Your task to perform on an android device: install app "Google Pay: Save, Pay, Manage" Image 0: 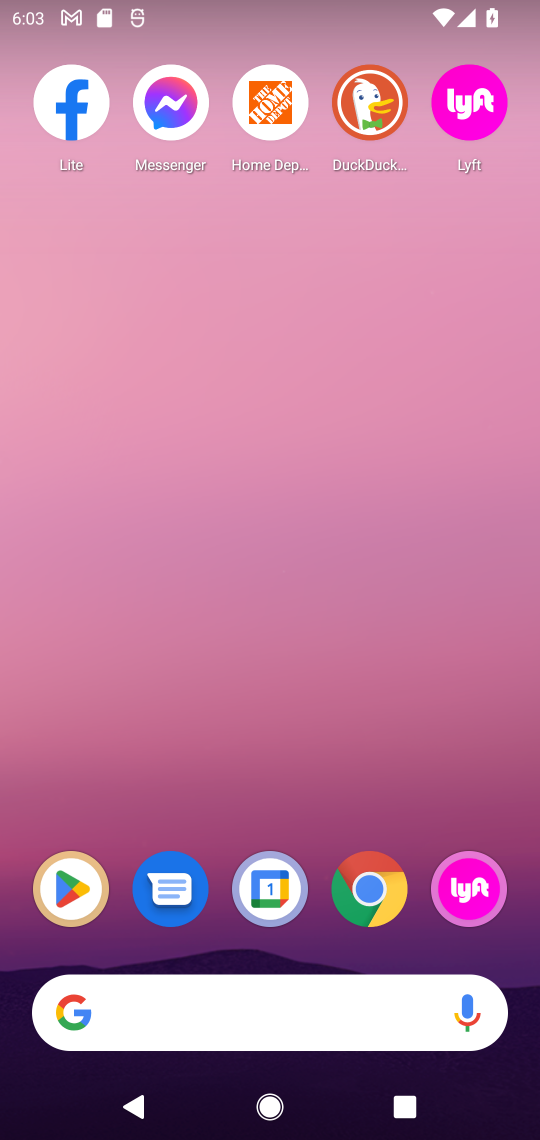
Step 0: drag from (338, 949) to (263, 94)
Your task to perform on an android device: install app "Google Pay: Save, Pay, Manage" Image 1: 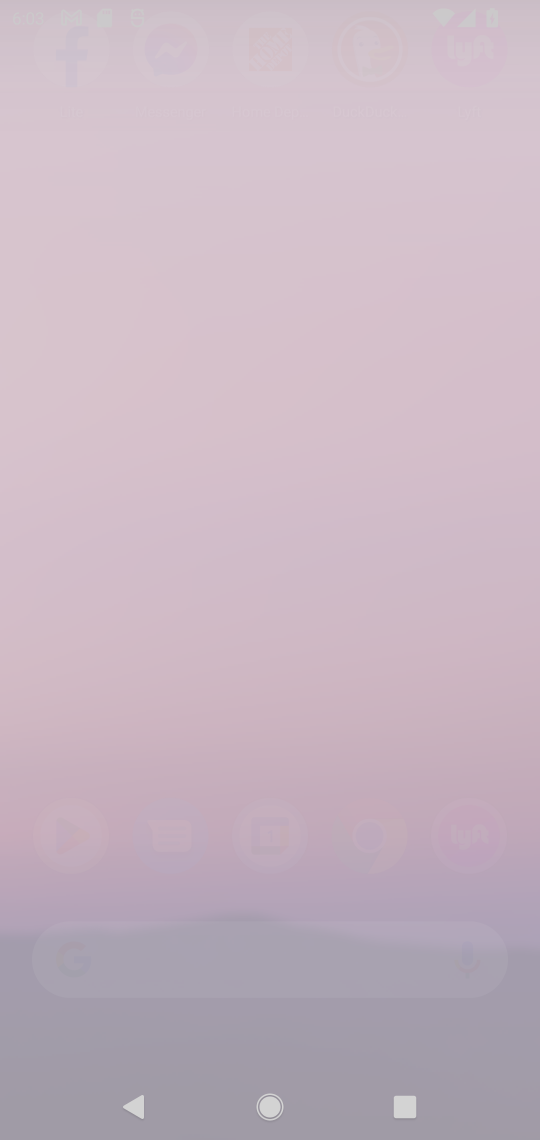
Step 1: drag from (336, 536) to (338, 0)
Your task to perform on an android device: install app "Google Pay: Save, Pay, Manage" Image 2: 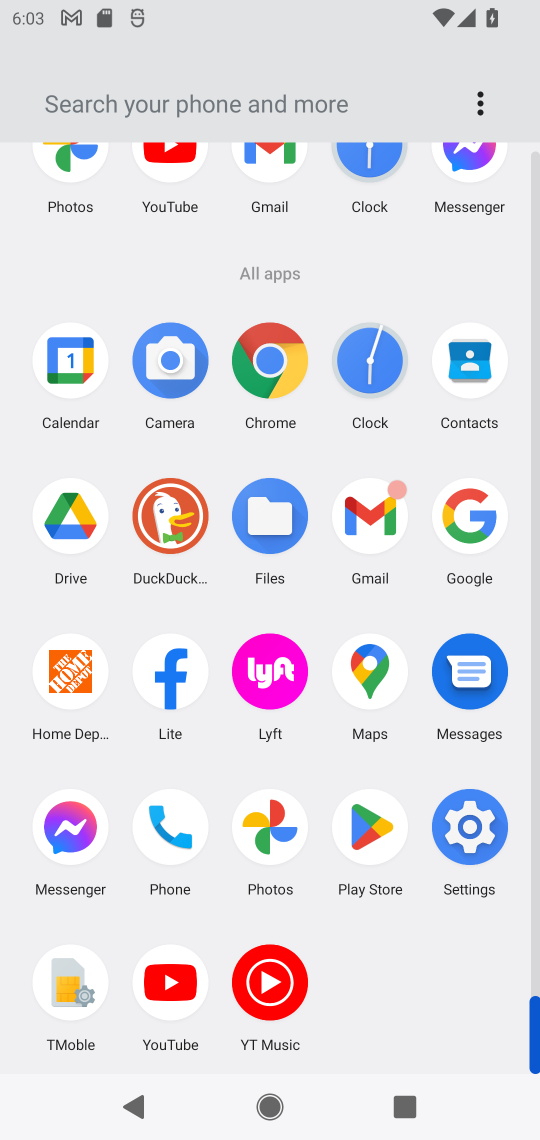
Step 2: click (325, 841)
Your task to perform on an android device: install app "Google Pay: Save, Pay, Manage" Image 3: 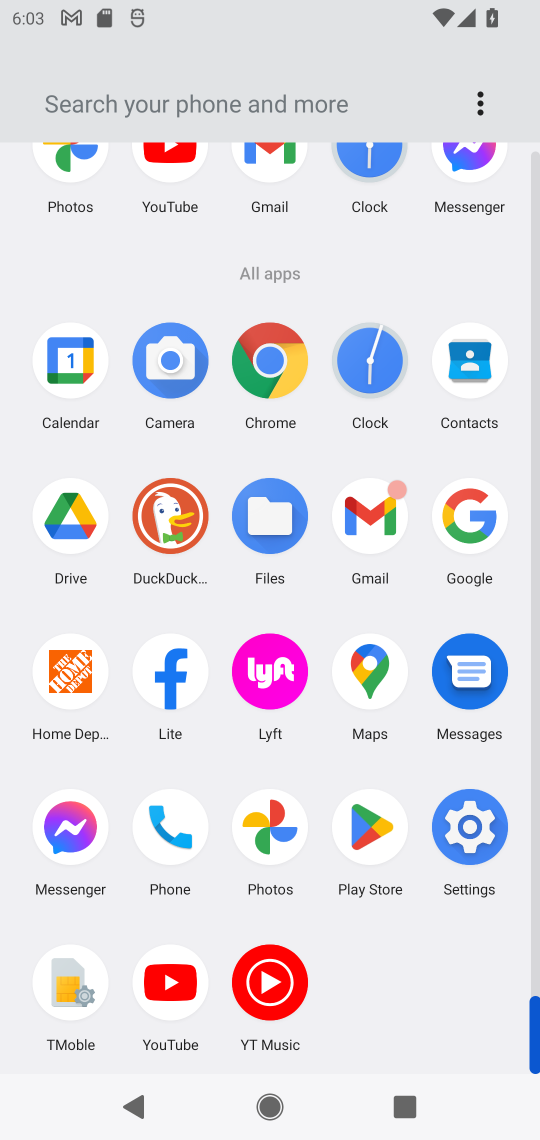
Step 3: click (352, 863)
Your task to perform on an android device: install app "Google Pay: Save, Pay, Manage" Image 4: 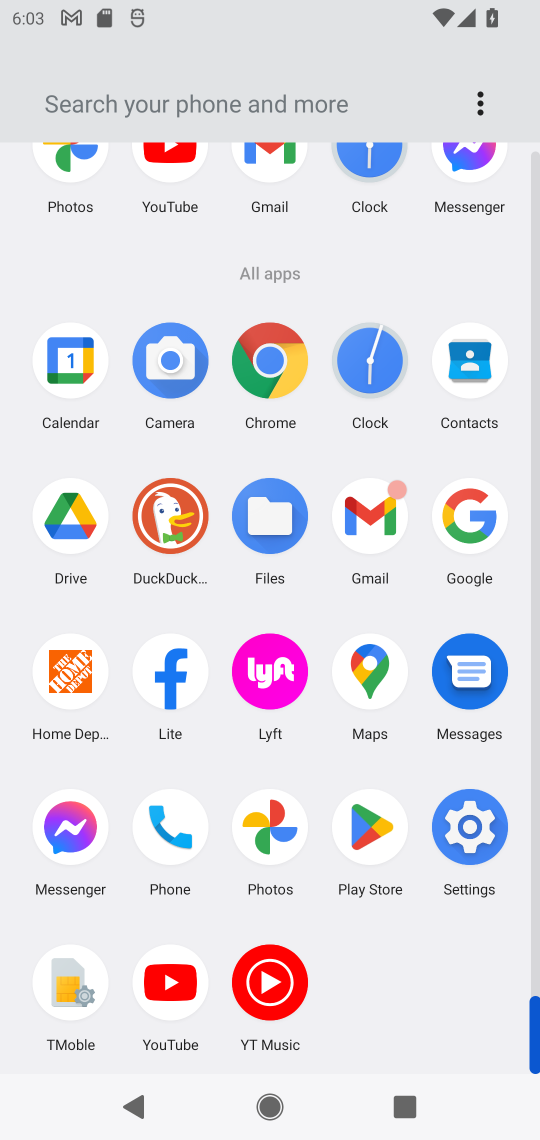
Step 4: click (351, 862)
Your task to perform on an android device: install app "Google Pay: Save, Pay, Manage" Image 5: 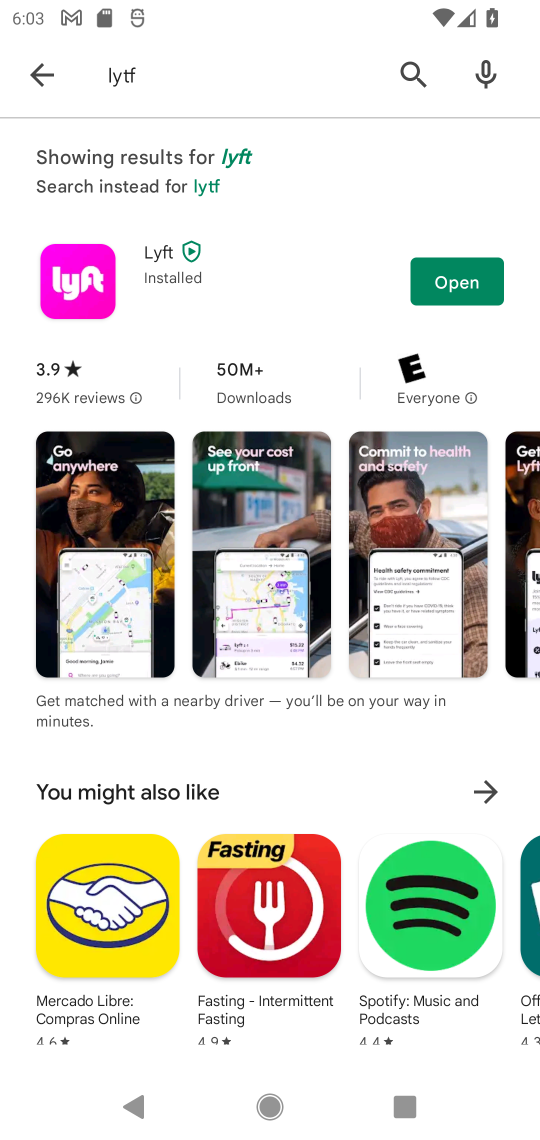
Step 5: click (28, 72)
Your task to perform on an android device: install app "Google Pay: Save, Pay, Manage" Image 6: 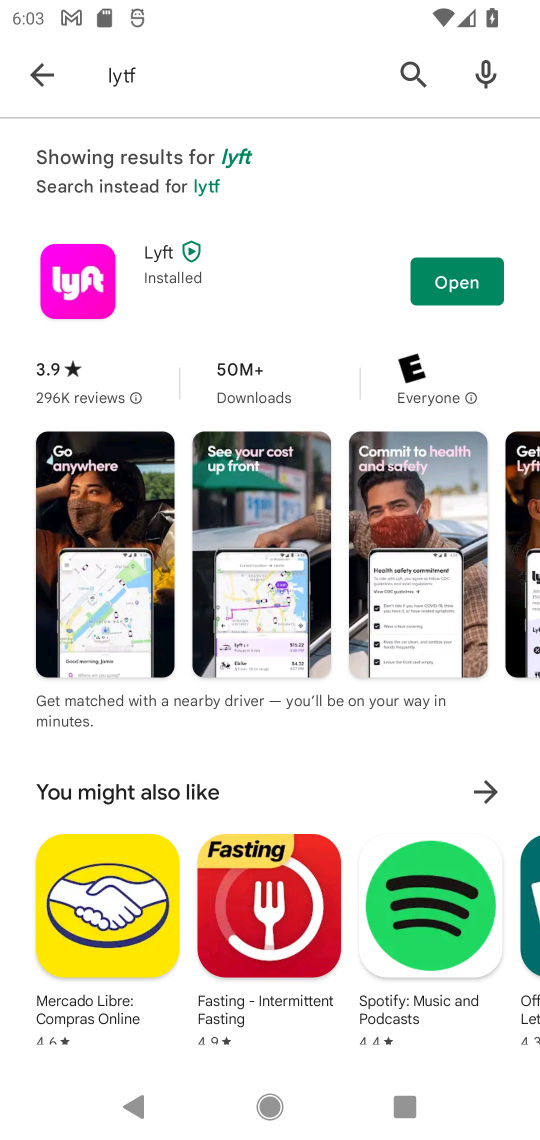
Step 6: click (26, 72)
Your task to perform on an android device: install app "Google Pay: Save, Pay, Manage" Image 7: 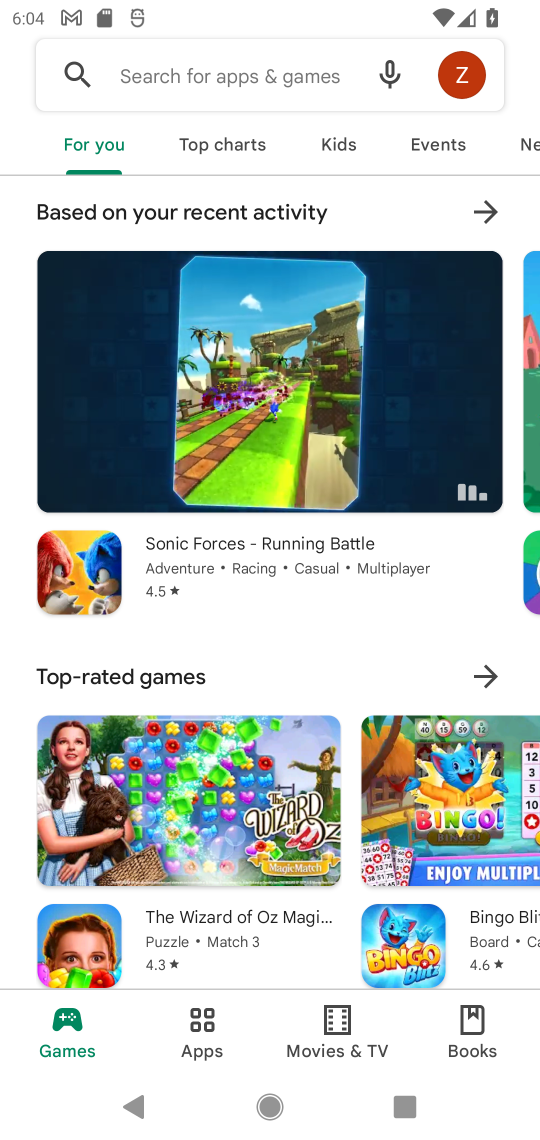
Step 7: click (154, 66)
Your task to perform on an android device: install app "Google Pay: Save, Pay, Manage" Image 8: 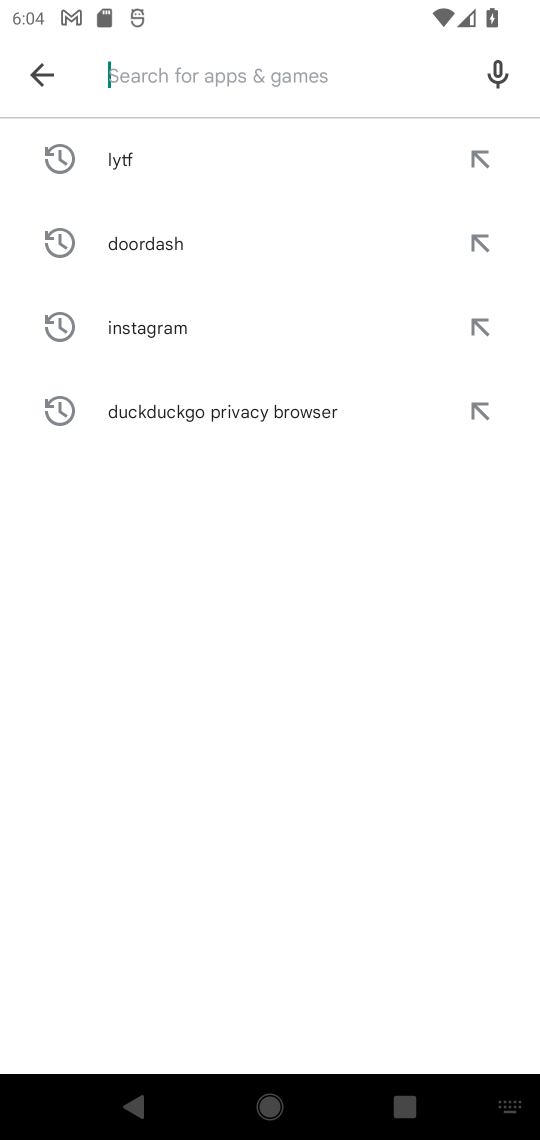
Step 8: type "Google Pay:Save,Pay,Manage"
Your task to perform on an android device: install app "Google Pay: Save, Pay, Manage" Image 9: 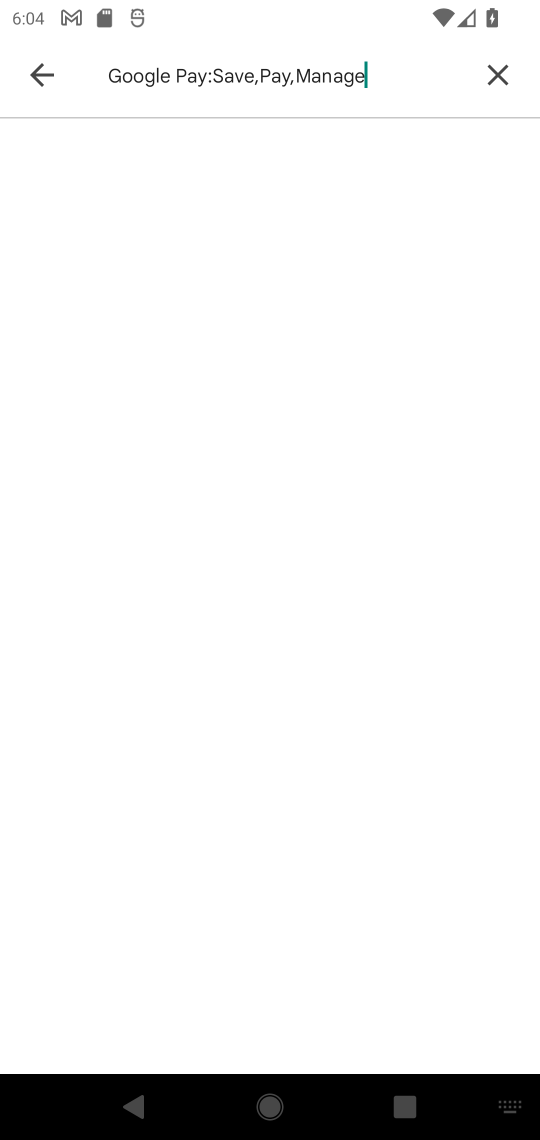
Step 9: click (475, 70)
Your task to perform on an android device: install app "Google Pay: Save, Pay, Manage" Image 10: 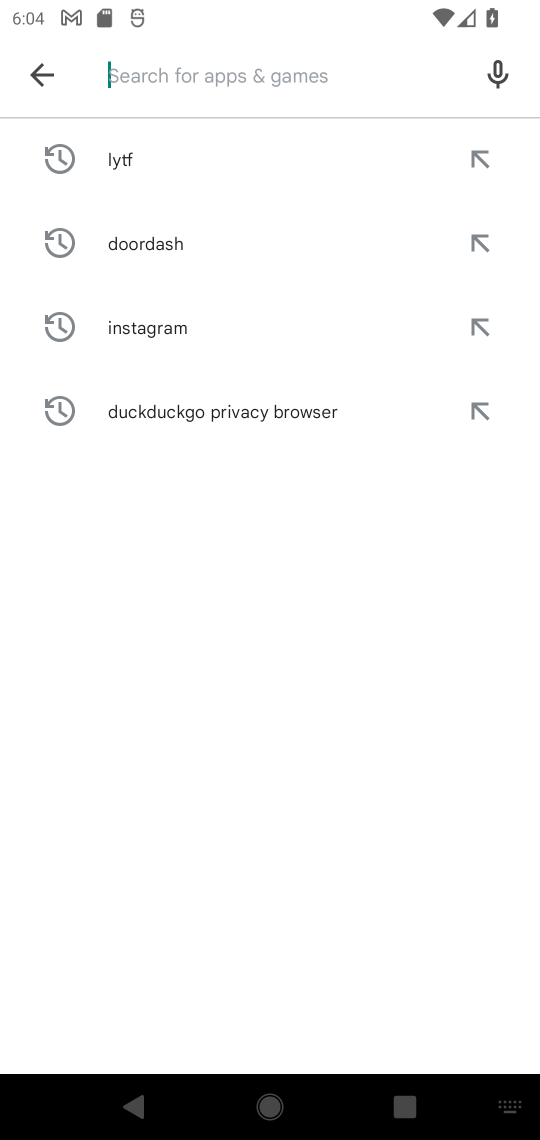
Step 10: type "GooglePay"
Your task to perform on an android device: install app "Google Pay: Save, Pay, Manage" Image 11: 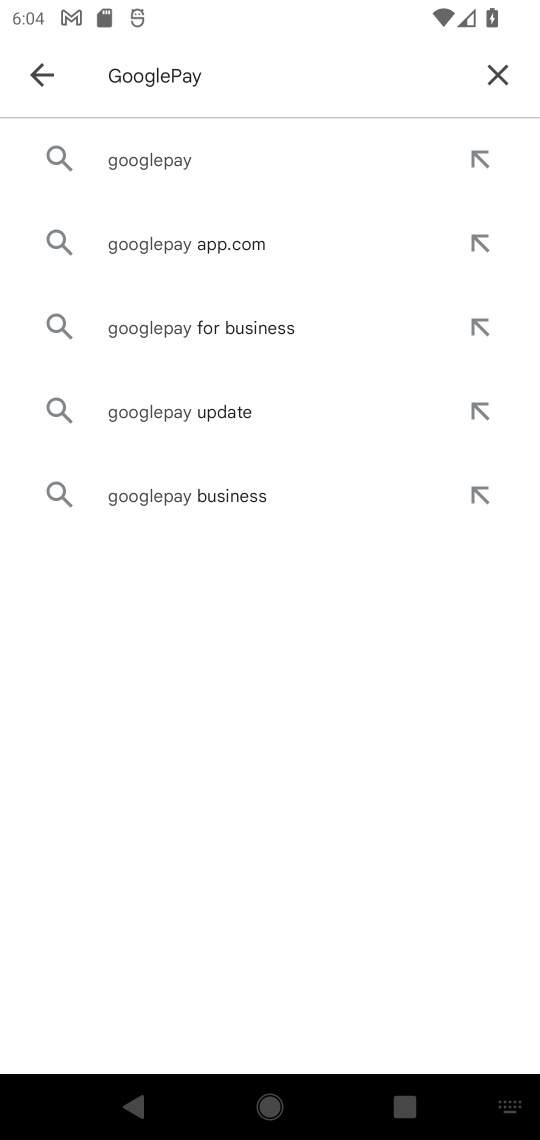
Step 11: click (152, 146)
Your task to perform on an android device: install app "Google Pay: Save, Pay, Manage" Image 12: 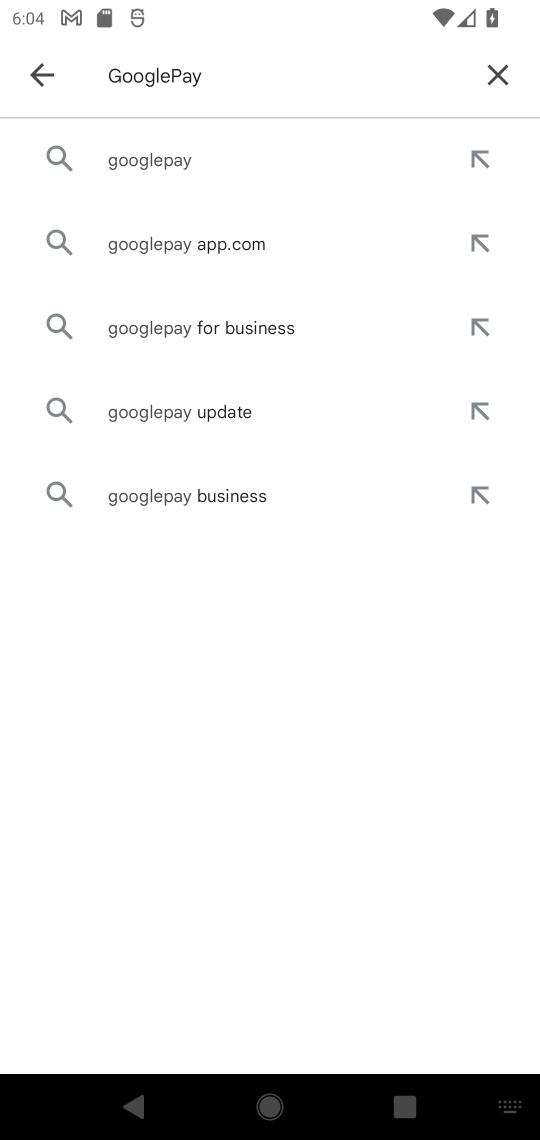
Step 12: click (155, 148)
Your task to perform on an android device: install app "Google Pay: Save, Pay, Manage" Image 13: 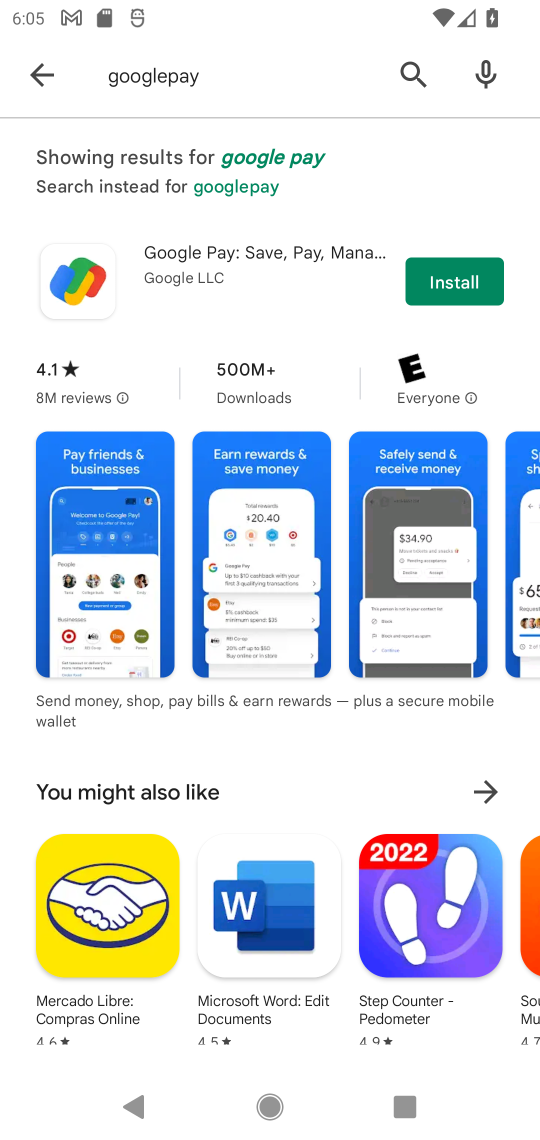
Step 13: click (436, 284)
Your task to perform on an android device: install app "Google Pay: Save, Pay, Manage" Image 14: 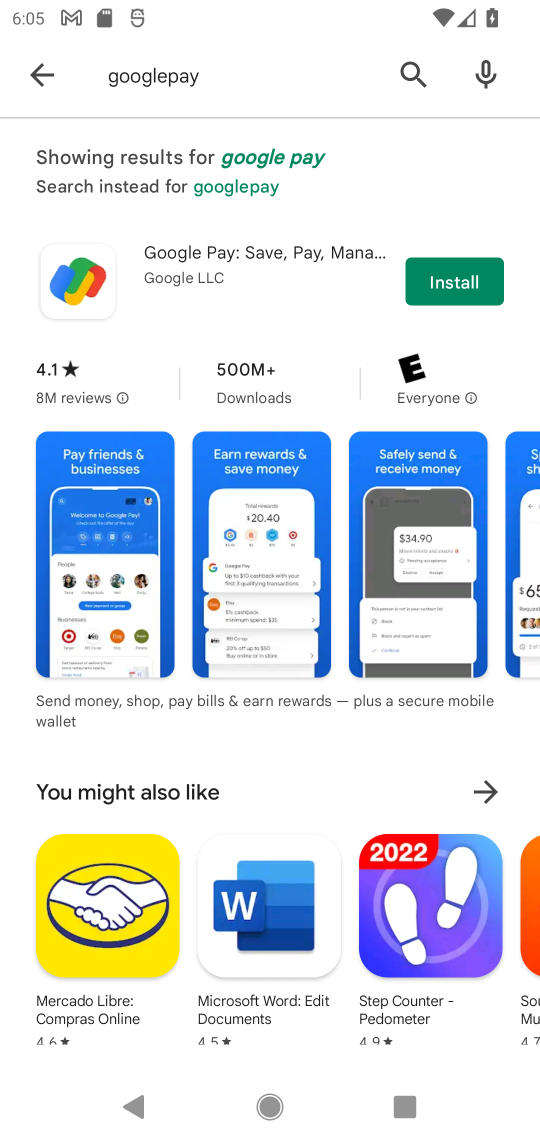
Step 14: click (438, 284)
Your task to perform on an android device: install app "Google Pay: Save, Pay, Manage" Image 15: 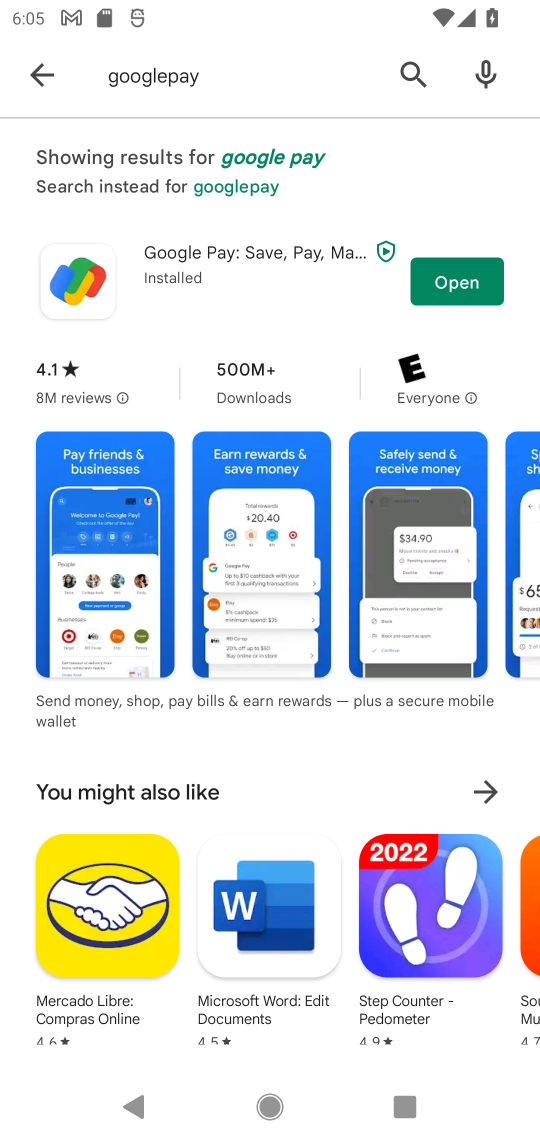
Step 15: click (500, 289)
Your task to perform on an android device: install app "Google Pay: Save, Pay, Manage" Image 16: 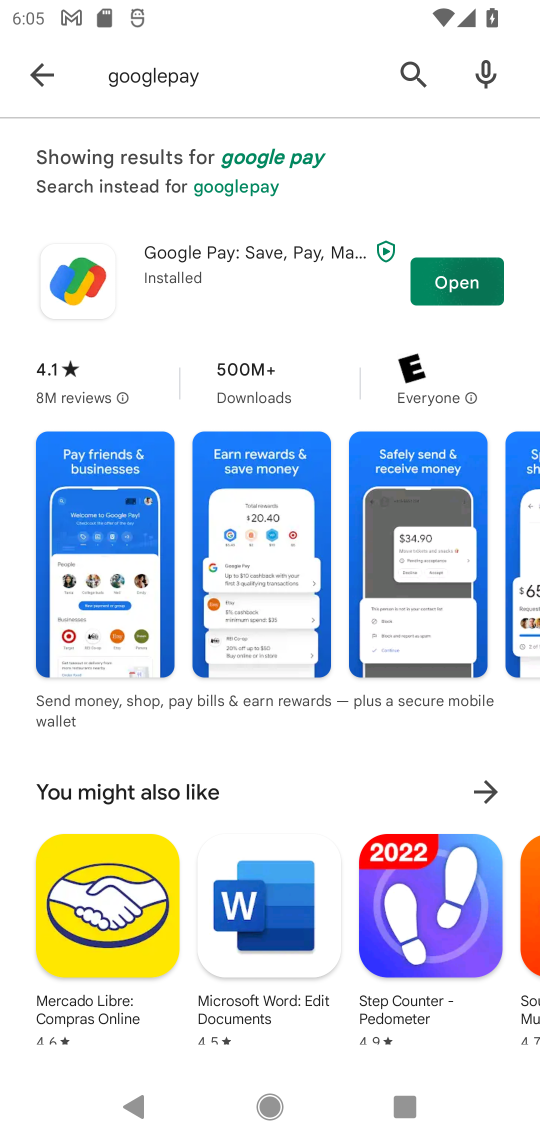
Step 16: click (479, 281)
Your task to perform on an android device: install app "Google Pay: Save, Pay, Manage" Image 17: 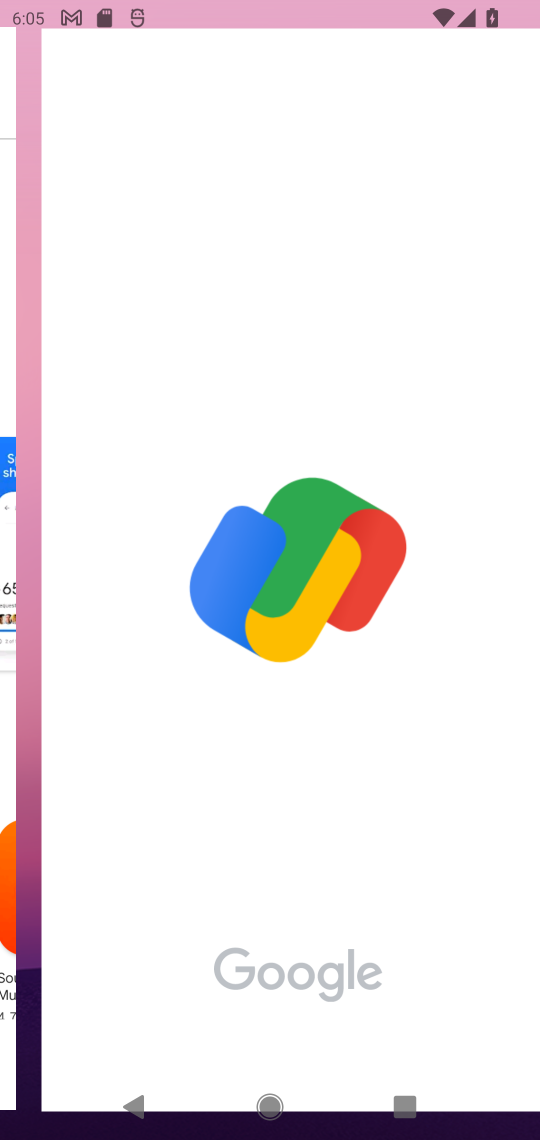
Step 17: click (478, 281)
Your task to perform on an android device: install app "Google Pay: Save, Pay, Manage" Image 18: 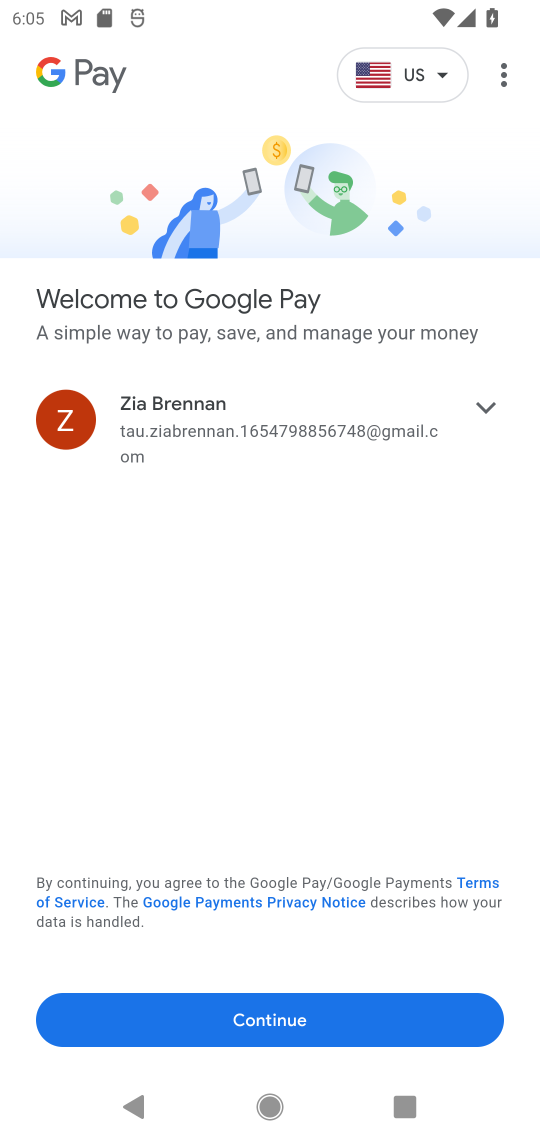
Step 18: click (306, 1020)
Your task to perform on an android device: install app "Google Pay: Save, Pay, Manage" Image 19: 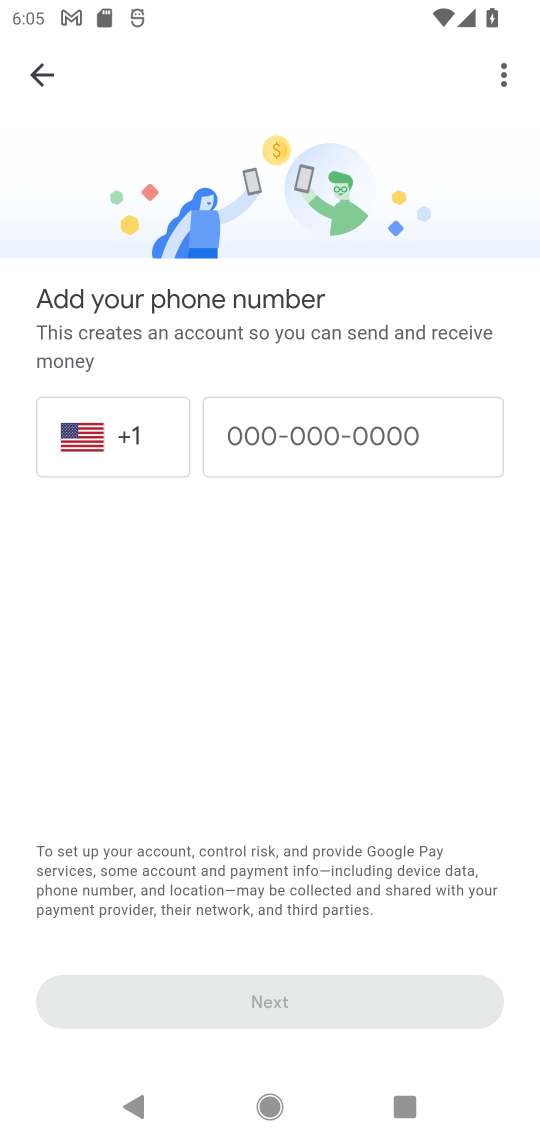
Step 19: task complete